Your task to perform on an android device: turn off smart reply in the gmail app Image 0: 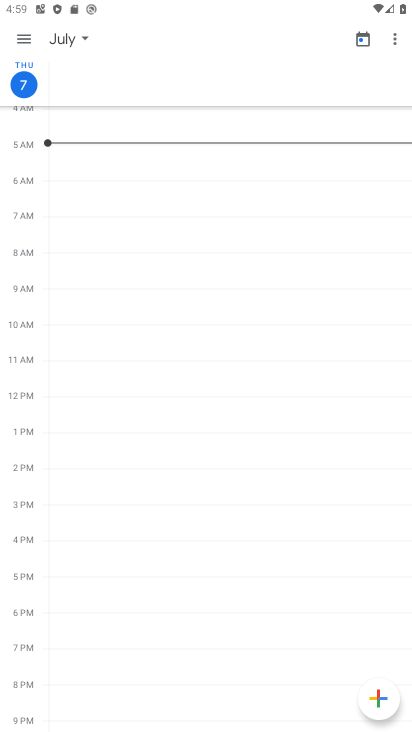
Step 0: press home button
Your task to perform on an android device: turn off smart reply in the gmail app Image 1: 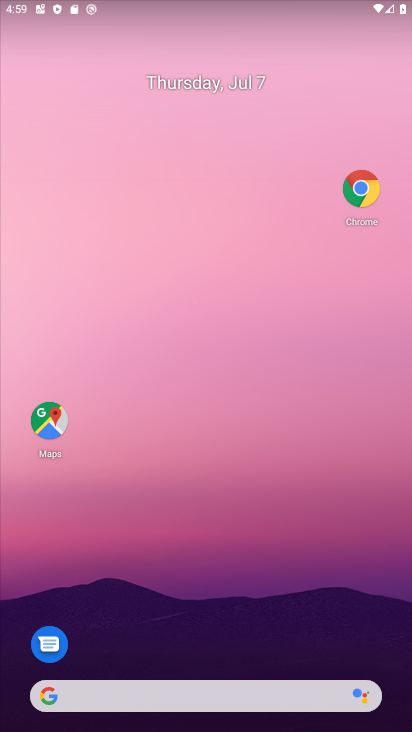
Step 1: drag from (229, 616) to (263, 128)
Your task to perform on an android device: turn off smart reply in the gmail app Image 2: 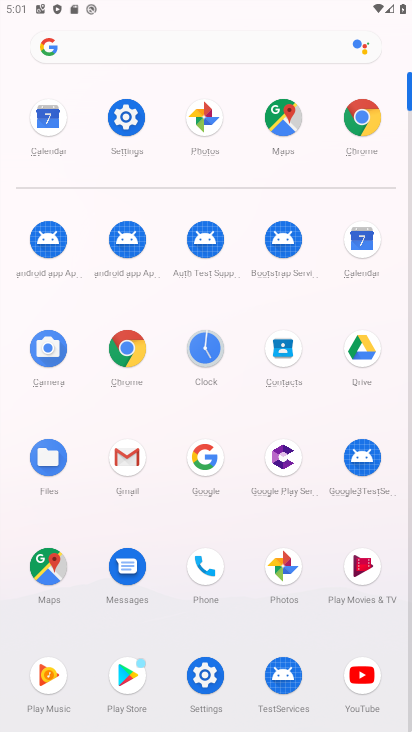
Step 2: click (127, 466)
Your task to perform on an android device: turn off smart reply in the gmail app Image 3: 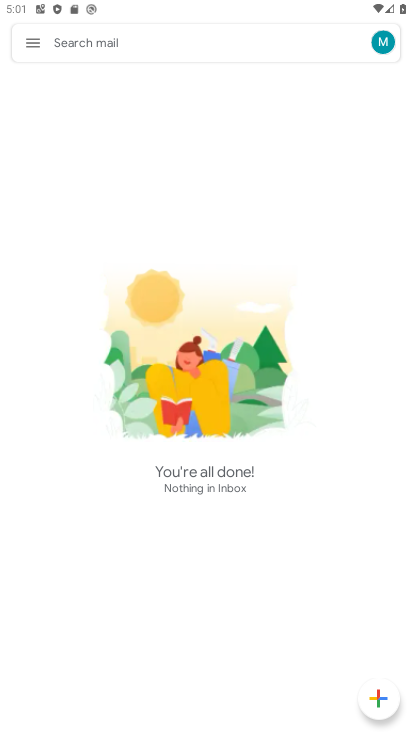
Step 3: click (32, 41)
Your task to perform on an android device: turn off smart reply in the gmail app Image 4: 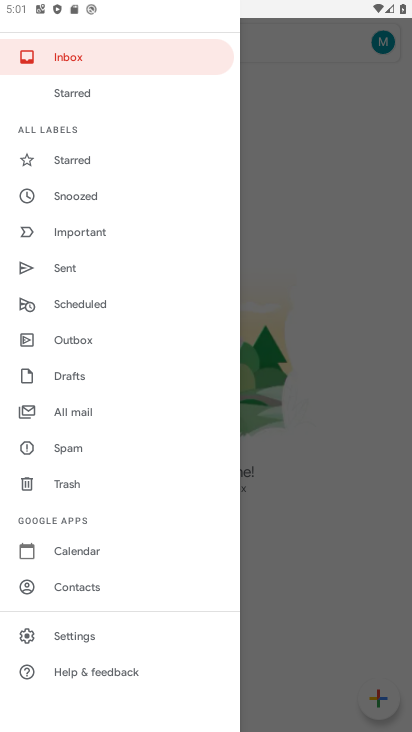
Step 4: click (35, 640)
Your task to perform on an android device: turn off smart reply in the gmail app Image 5: 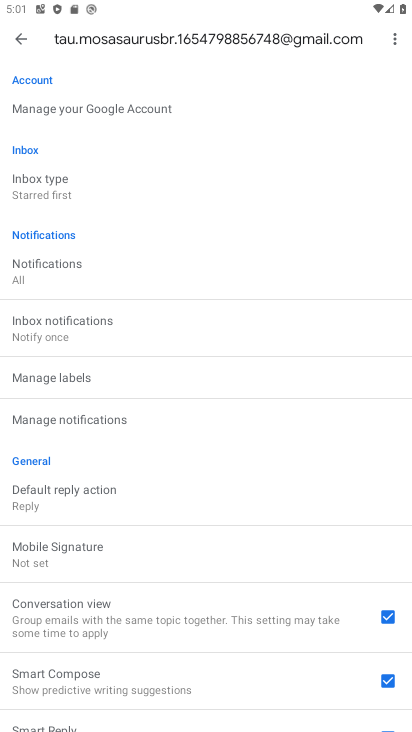
Step 5: drag from (121, 661) to (148, 450)
Your task to perform on an android device: turn off smart reply in the gmail app Image 6: 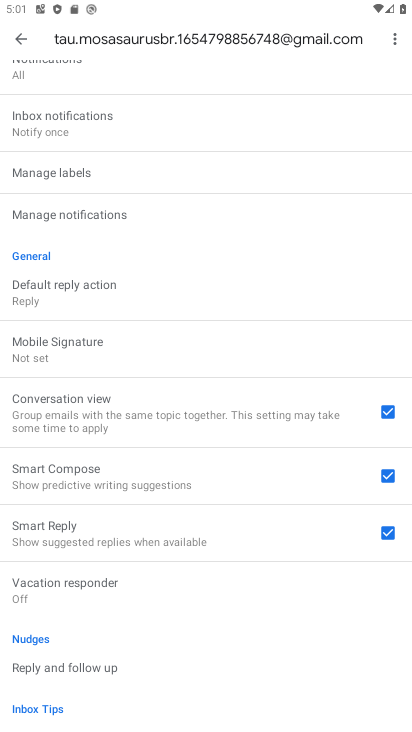
Step 6: click (108, 545)
Your task to perform on an android device: turn off smart reply in the gmail app Image 7: 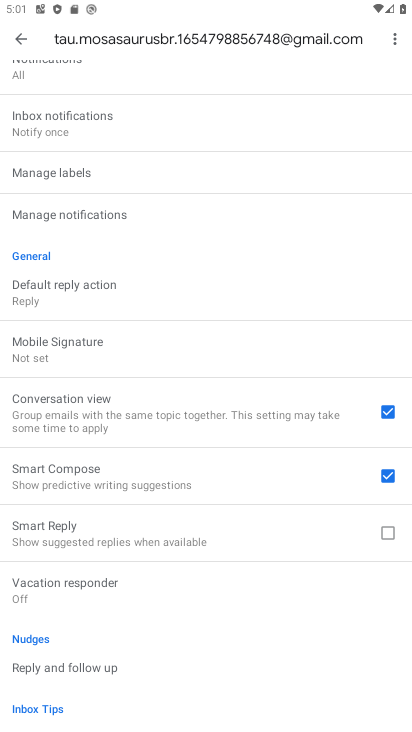
Step 7: task complete